Your task to perform on an android device: change alarm snooze length Image 0: 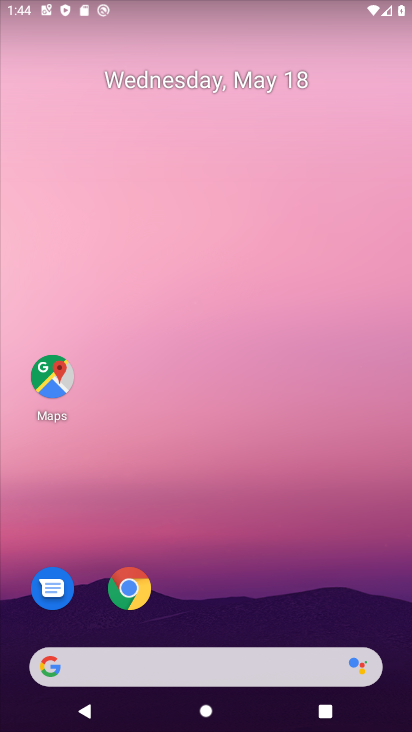
Step 0: drag from (368, 611) to (374, 113)
Your task to perform on an android device: change alarm snooze length Image 1: 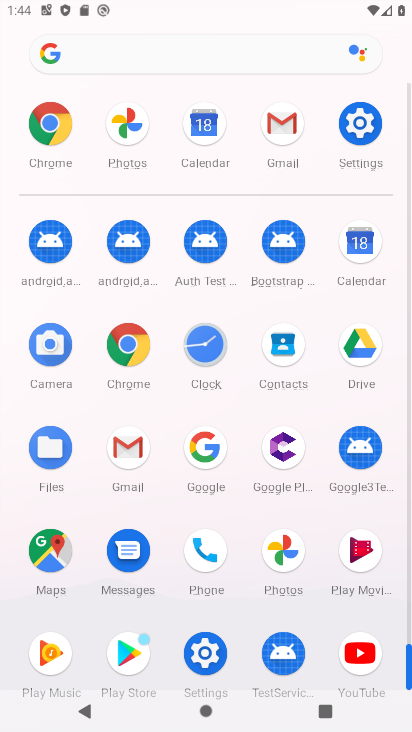
Step 1: click (212, 349)
Your task to perform on an android device: change alarm snooze length Image 2: 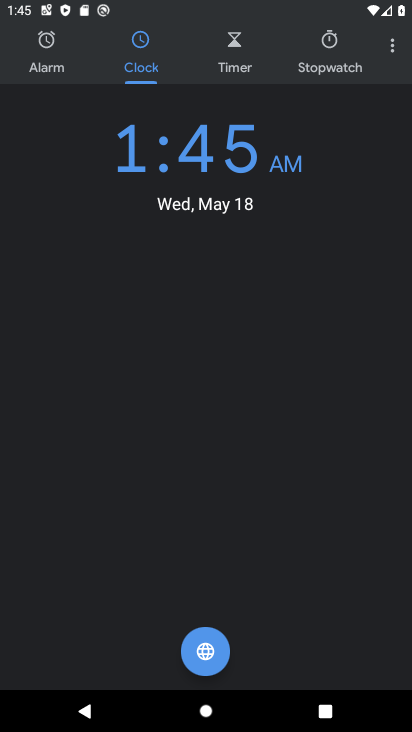
Step 2: click (394, 55)
Your task to perform on an android device: change alarm snooze length Image 3: 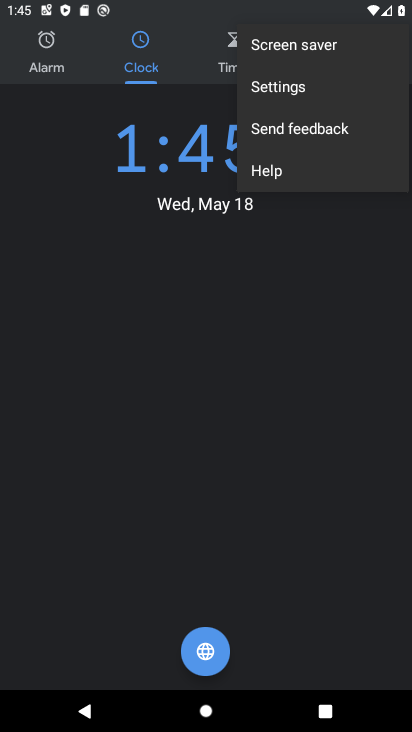
Step 3: click (315, 87)
Your task to perform on an android device: change alarm snooze length Image 4: 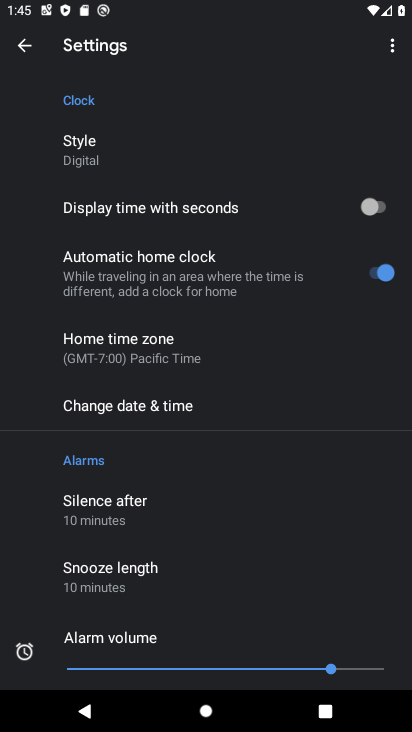
Step 4: drag from (296, 513) to (305, 388)
Your task to perform on an android device: change alarm snooze length Image 5: 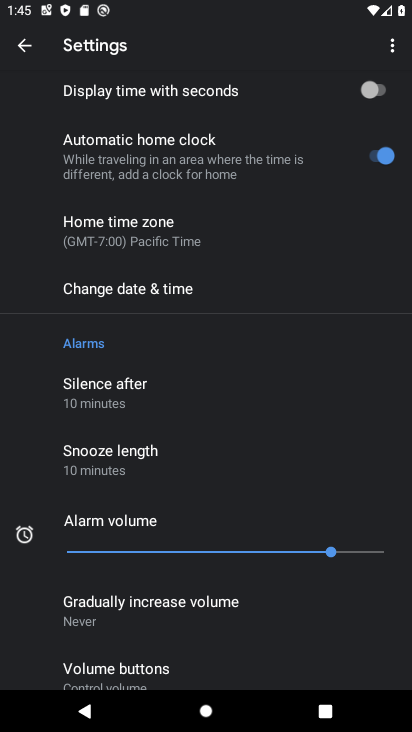
Step 5: drag from (268, 603) to (294, 424)
Your task to perform on an android device: change alarm snooze length Image 6: 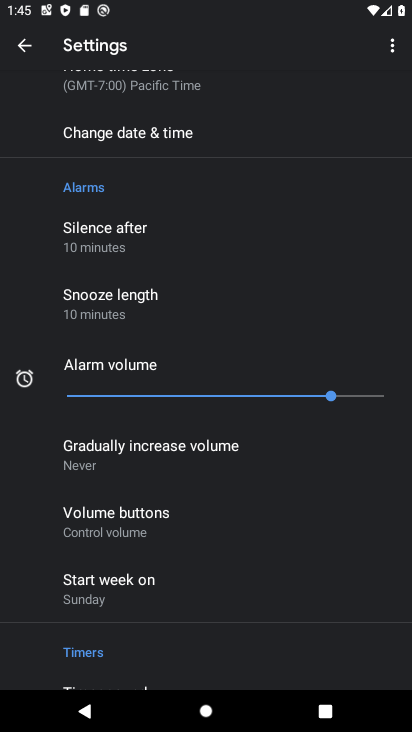
Step 6: drag from (260, 562) to (263, 334)
Your task to perform on an android device: change alarm snooze length Image 7: 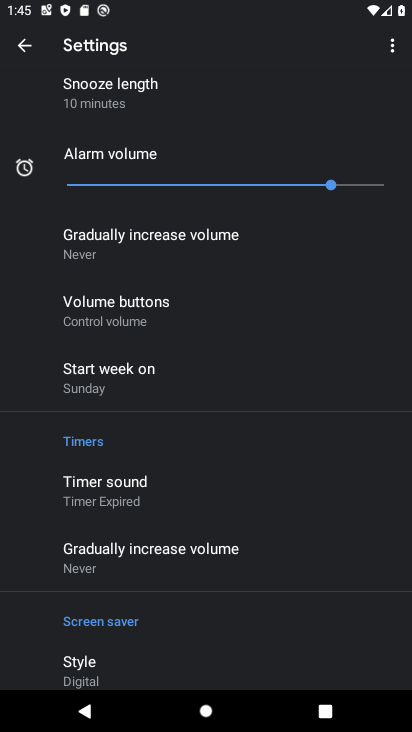
Step 7: drag from (230, 619) to (257, 426)
Your task to perform on an android device: change alarm snooze length Image 8: 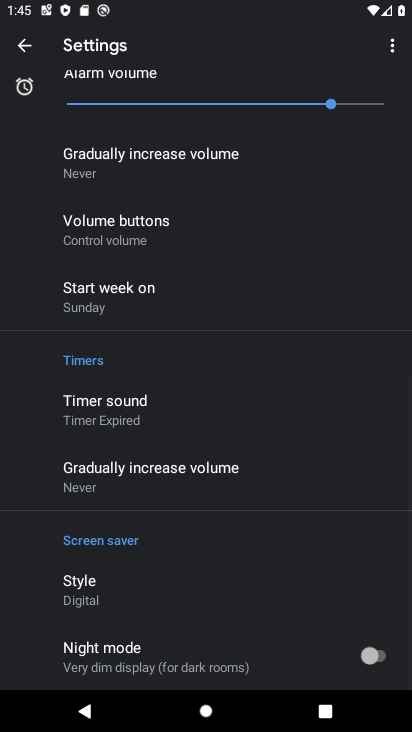
Step 8: drag from (249, 592) to (286, 390)
Your task to perform on an android device: change alarm snooze length Image 9: 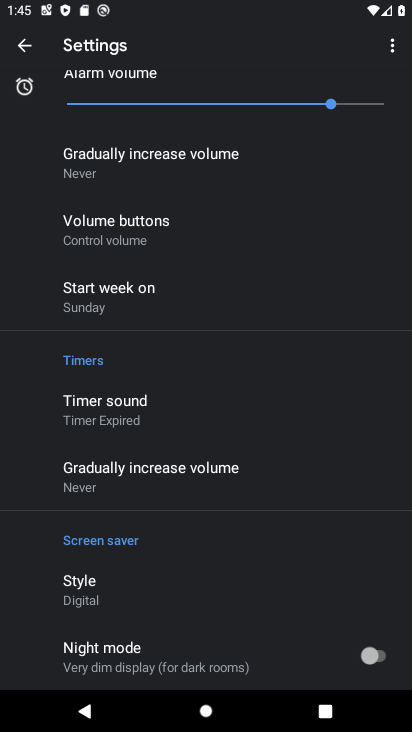
Step 9: drag from (306, 581) to (299, 384)
Your task to perform on an android device: change alarm snooze length Image 10: 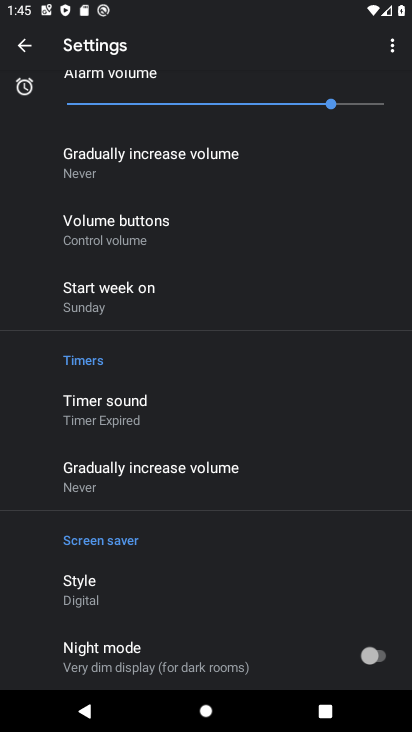
Step 10: drag from (303, 303) to (285, 475)
Your task to perform on an android device: change alarm snooze length Image 11: 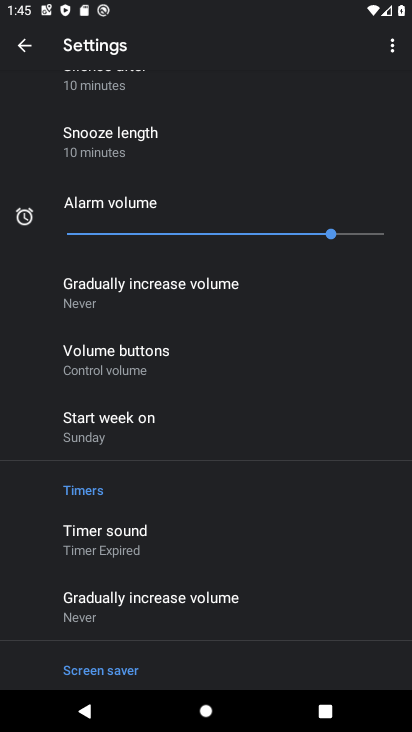
Step 11: drag from (249, 182) to (245, 380)
Your task to perform on an android device: change alarm snooze length Image 12: 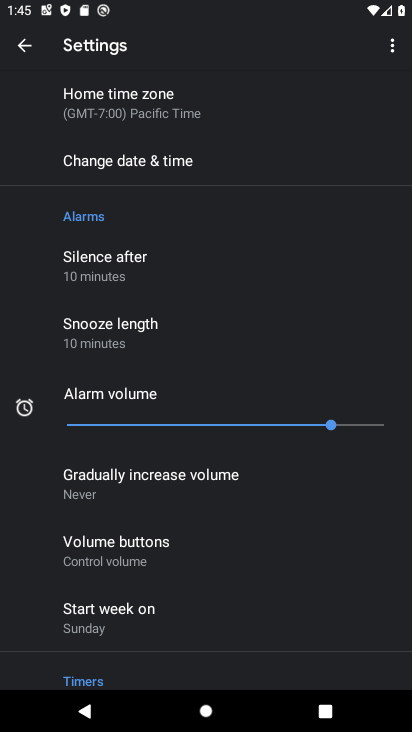
Step 12: click (129, 353)
Your task to perform on an android device: change alarm snooze length Image 13: 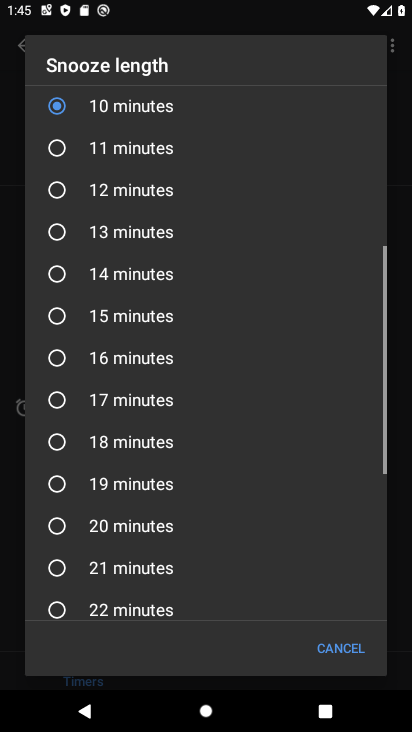
Step 13: click (132, 358)
Your task to perform on an android device: change alarm snooze length Image 14: 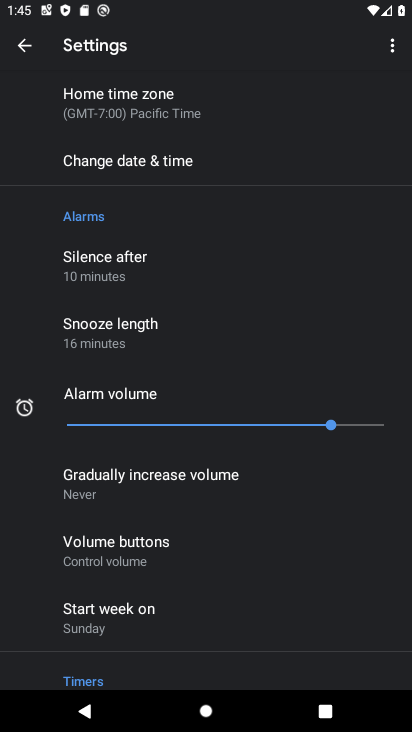
Step 14: task complete